Your task to perform on an android device: see tabs open on other devices in the chrome app Image 0: 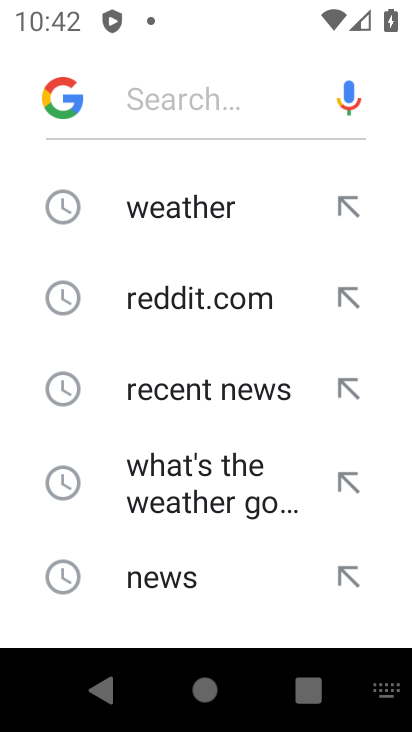
Step 0: press back button
Your task to perform on an android device: see tabs open on other devices in the chrome app Image 1: 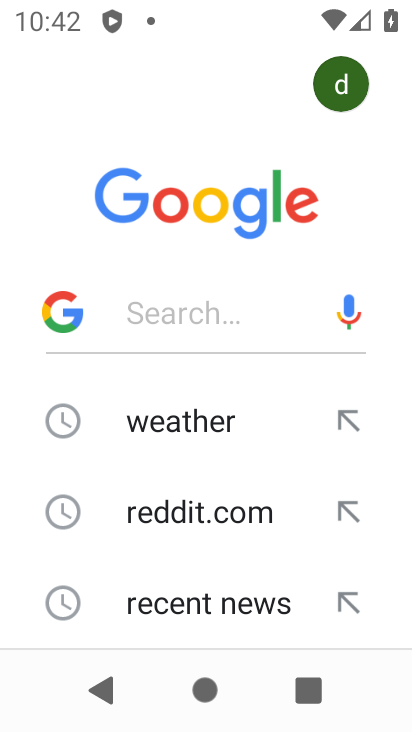
Step 1: press home button
Your task to perform on an android device: see tabs open on other devices in the chrome app Image 2: 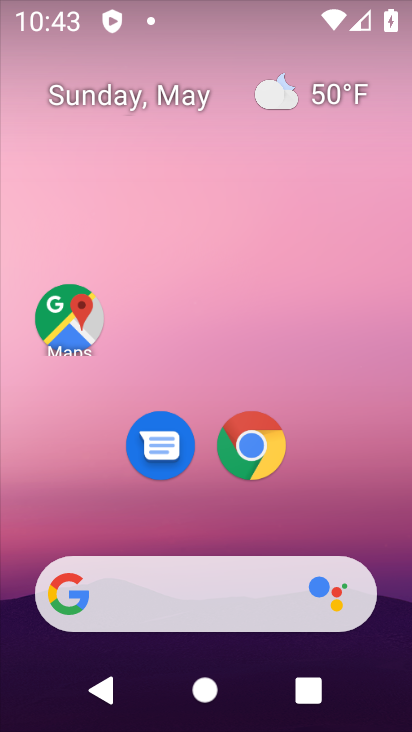
Step 2: click (302, 447)
Your task to perform on an android device: see tabs open on other devices in the chrome app Image 3: 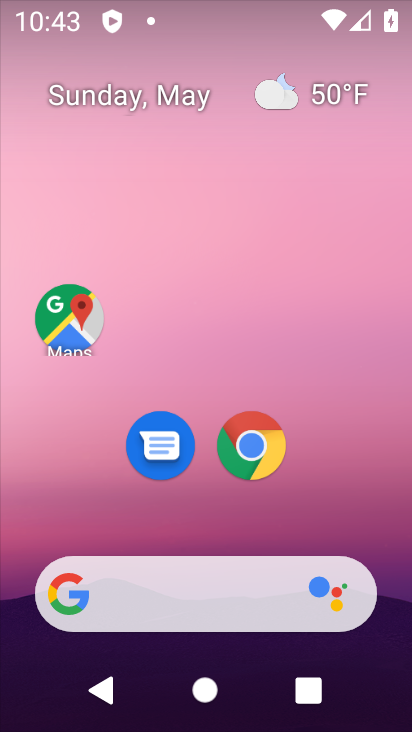
Step 3: click (259, 448)
Your task to perform on an android device: see tabs open on other devices in the chrome app Image 4: 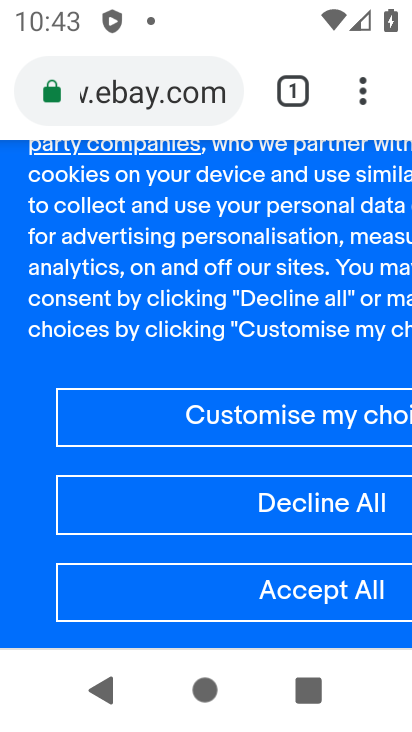
Step 4: click (376, 94)
Your task to perform on an android device: see tabs open on other devices in the chrome app Image 5: 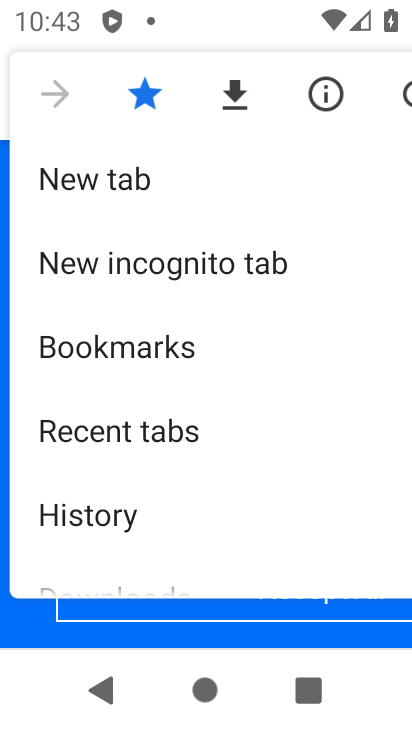
Step 5: drag from (127, 470) to (192, 29)
Your task to perform on an android device: see tabs open on other devices in the chrome app Image 6: 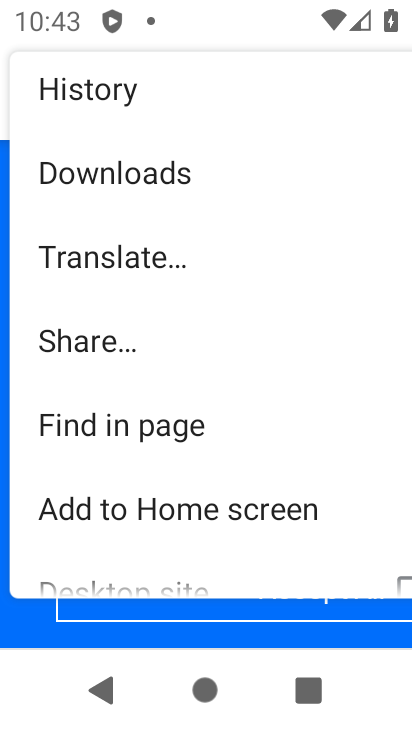
Step 6: drag from (188, 276) to (176, 523)
Your task to perform on an android device: see tabs open on other devices in the chrome app Image 7: 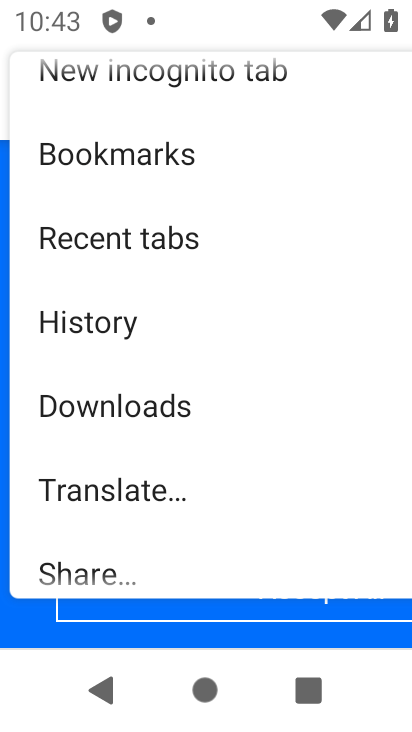
Step 7: drag from (228, 196) to (285, 116)
Your task to perform on an android device: see tabs open on other devices in the chrome app Image 8: 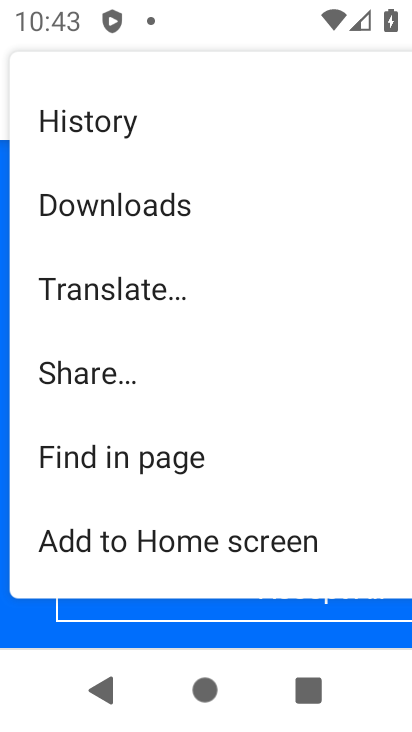
Step 8: drag from (225, 400) to (275, 128)
Your task to perform on an android device: see tabs open on other devices in the chrome app Image 9: 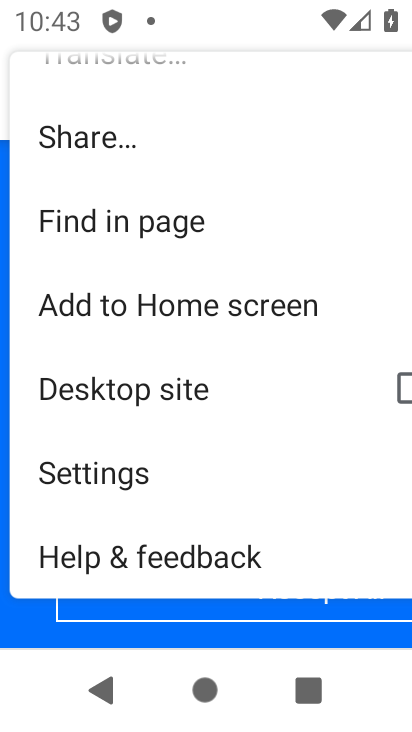
Step 9: drag from (253, 271) to (219, 594)
Your task to perform on an android device: see tabs open on other devices in the chrome app Image 10: 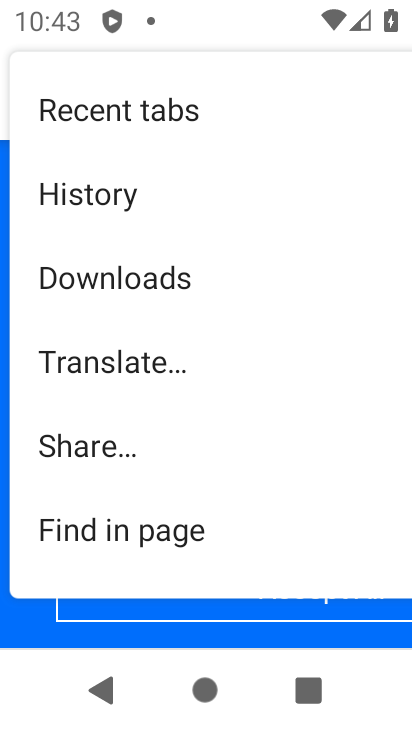
Step 10: drag from (204, 217) to (194, 309)
Your task to perform on an android device: see tabs open on other devices in the chrome app Image 11: 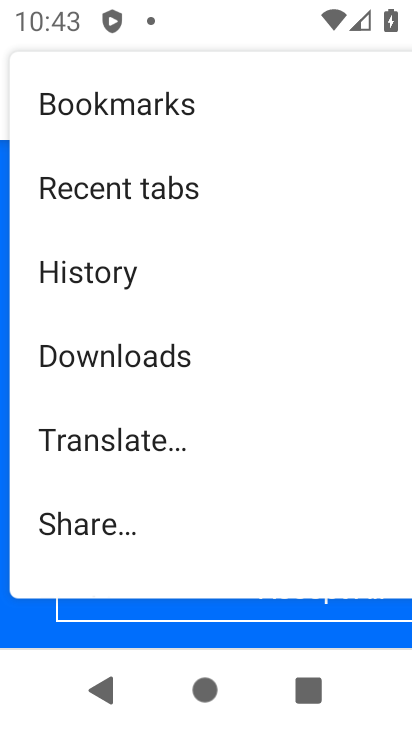
Step 11: click (178, 194)
Your task to perform on an android device: see tabs open on other devices in the chrome app Image 12: 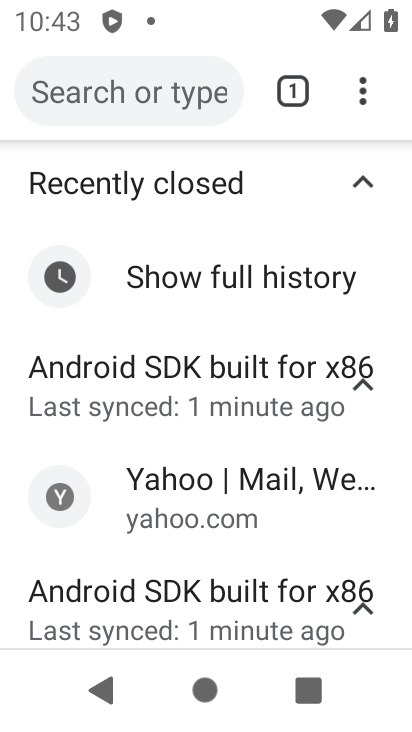
Step 12: task complete